Your task to perform on an android device: Go to Maps Image 0: 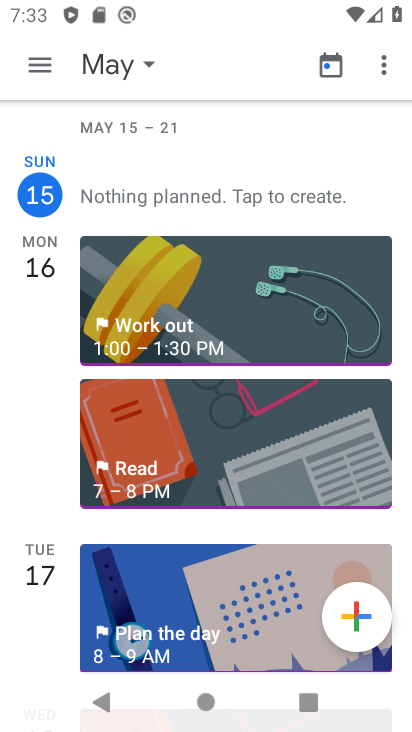
Step 0: press home button
Your task to perform on an android device: Go to Maps Image 1: 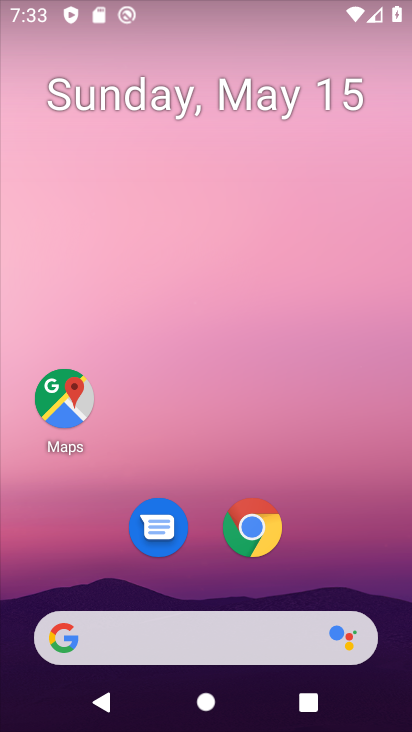
Step 1: click (66, 400)
Your task to perform on an android device: Go to Maps Image 2: 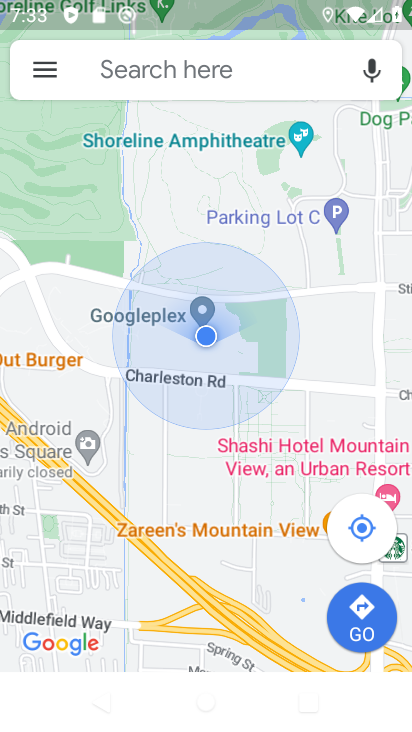
Step 2: task complete